Your task to perform on an android device: What's the weather going to be tomorrow? Image 0: 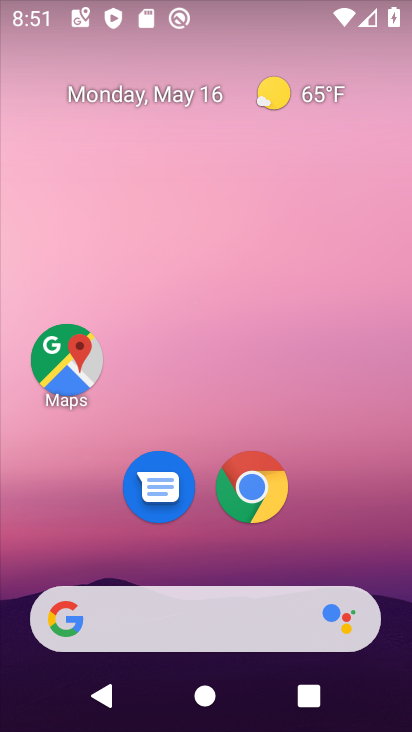
Step 0: click (214, 609)
Your task to perform on an android device: What's the weather going to be tomorrow? Image 1: 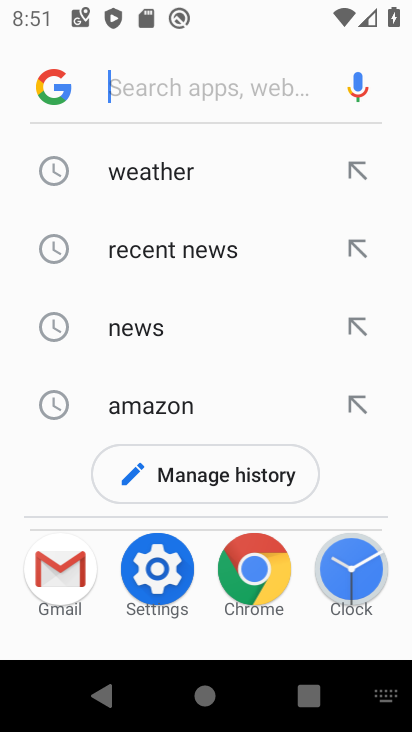
Step 1: click (172, 183)
Your task to perform on an android device: What's the weather going to be tomorrow? Image 2: 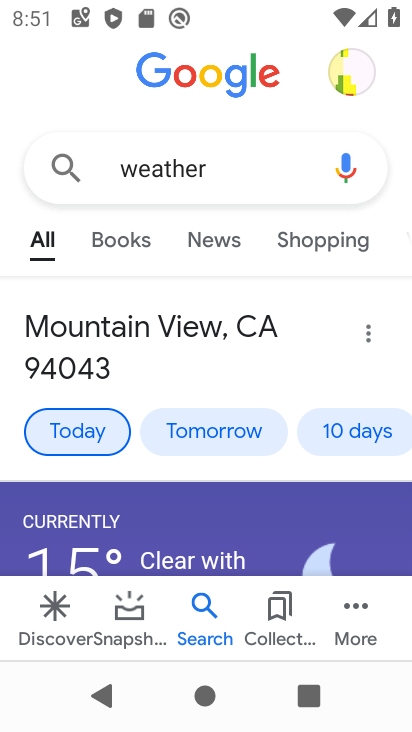
Step 2: drag from (241, 504) to (243, 302)
Your task to perform on an android device: What's the weather going to be tomorrow? Image 3: 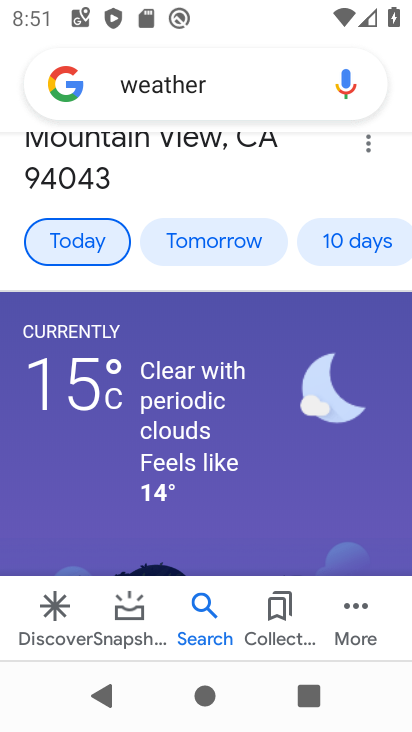
Step 3: click (233, 236)
Your task to perform on an android device: What's the weather going to be tomorrow? Image 4: 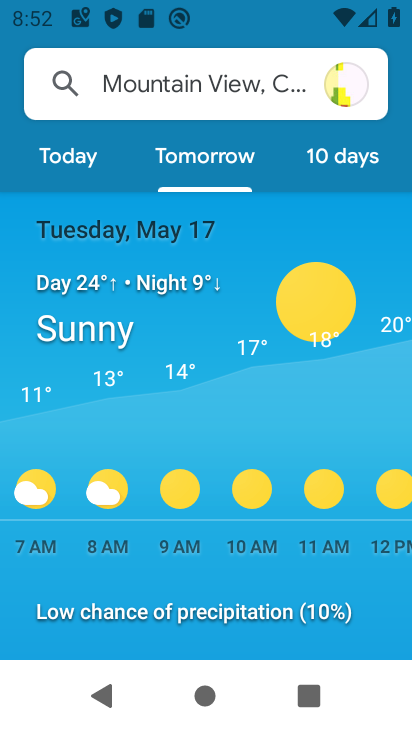
Step 4: task complete